Your task to perform on an android device: Do I have any events tomorrow? Image 0: 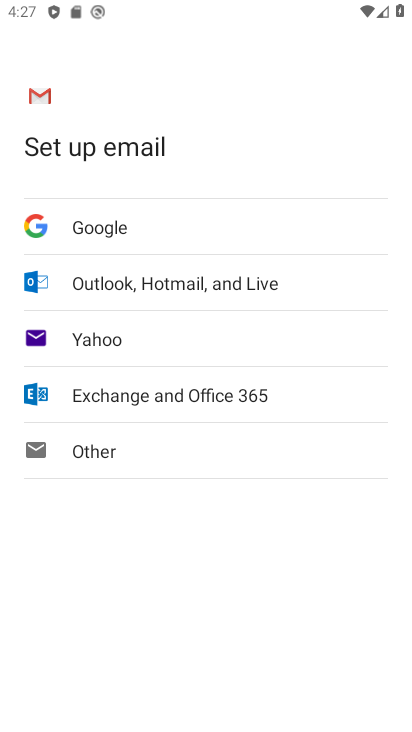
Step 0: press back button
Your task to perform on an android device: Do I have any events tomorrow? Image 1: 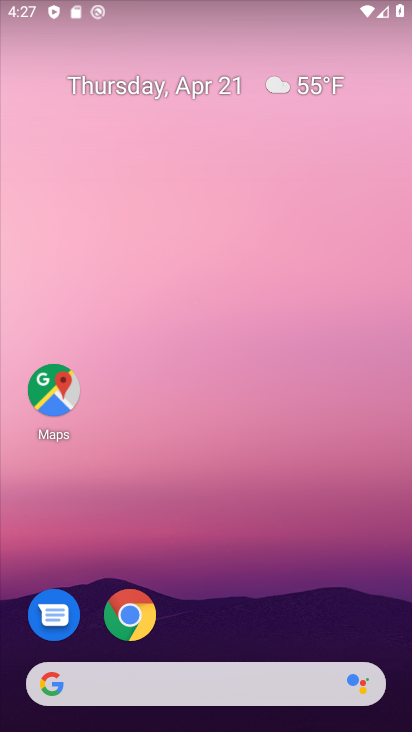
Step 1: drag from (361, 550) to (332, 49)
Your task to perform on an android device: Do I have any events tomorrow? Image 2: 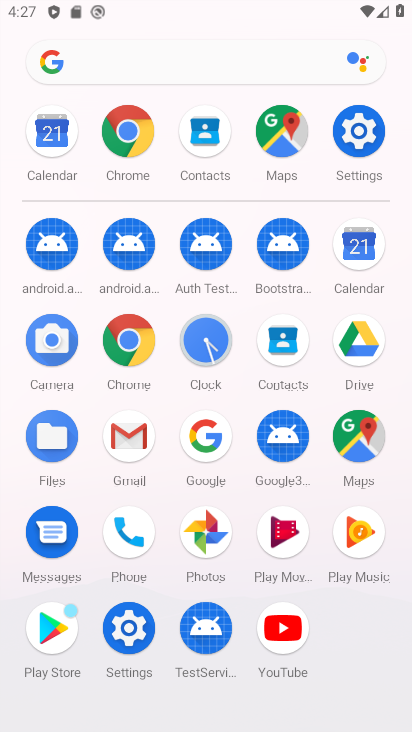
Step 2: drag from (15, 530) to (15, 253)
Your task to perform on an android device: Do I have any events tomorrow? Image 3: 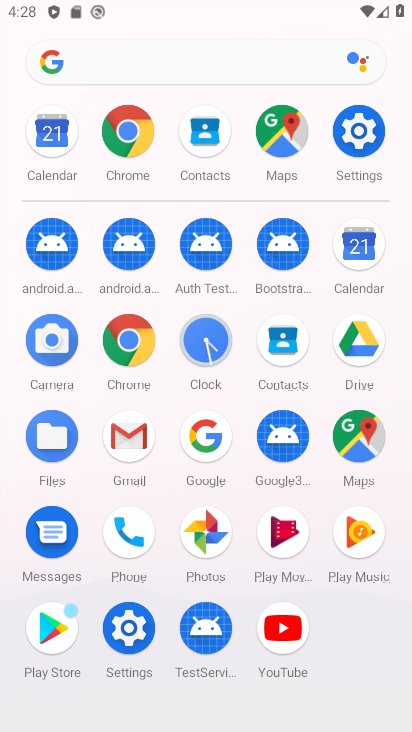
Step 3: click (361, 238)
Your task to perform on an android device: Do I have any events tomorrow? Image 4: 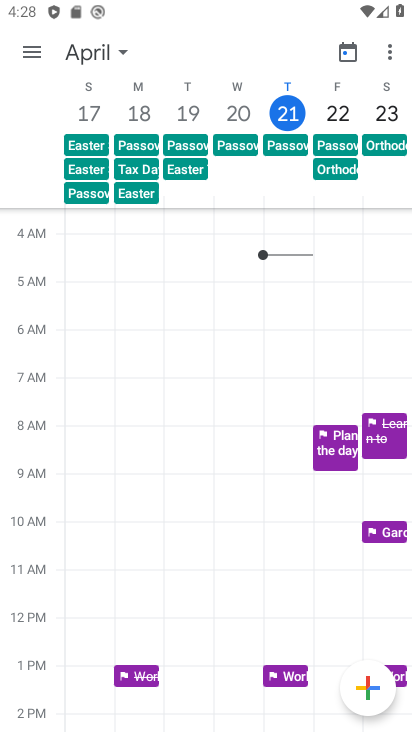
Step 4: click (334, 109)
Your task to perform on an android device: Do I have any events tomorrow? Image 5: 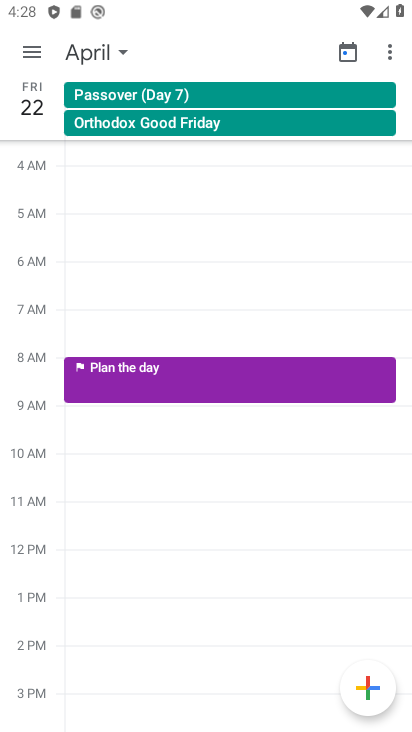
Step 5: task complete